Your task to perform on an android device: empty trash in google photos Image 0: 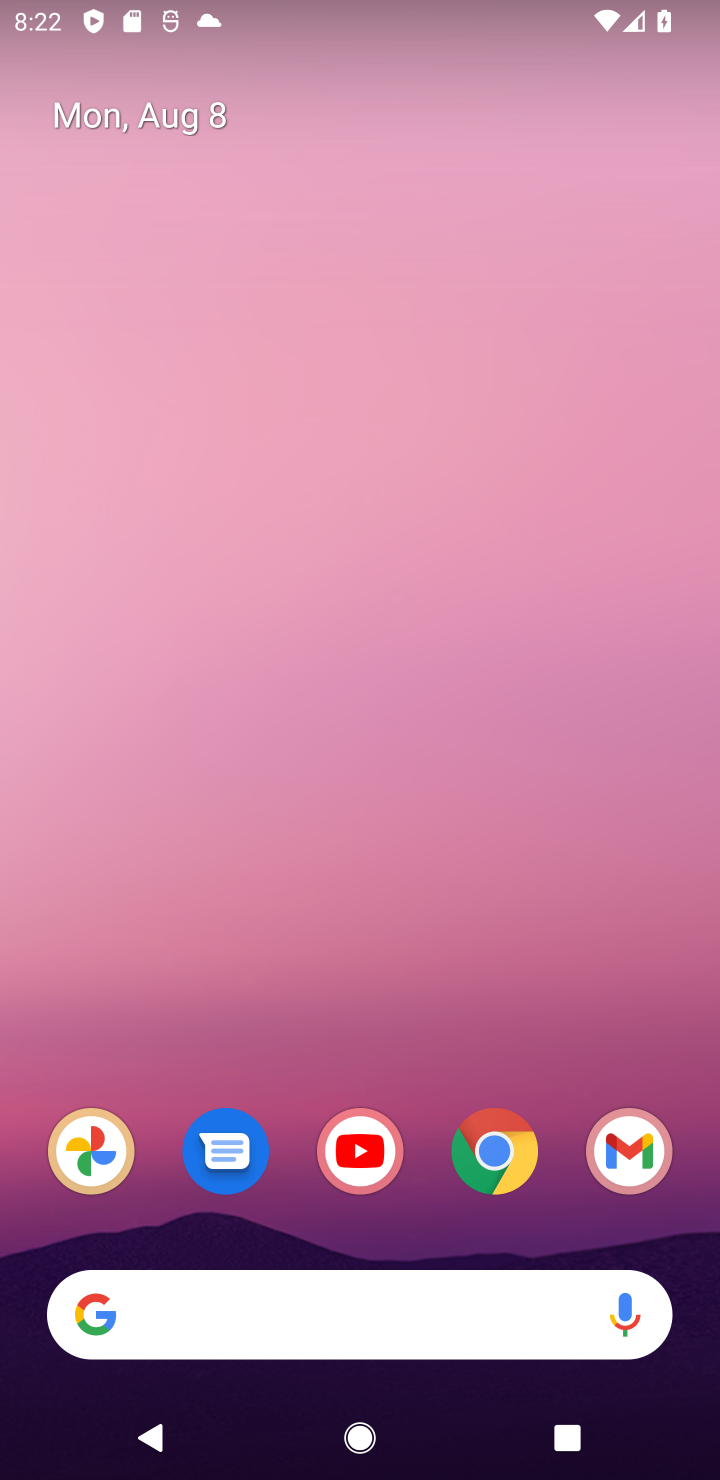
Step 0: drag from (429, 1055) to (333, 439)
Your task to perform on an android device: empty trash in google photos Image 1: 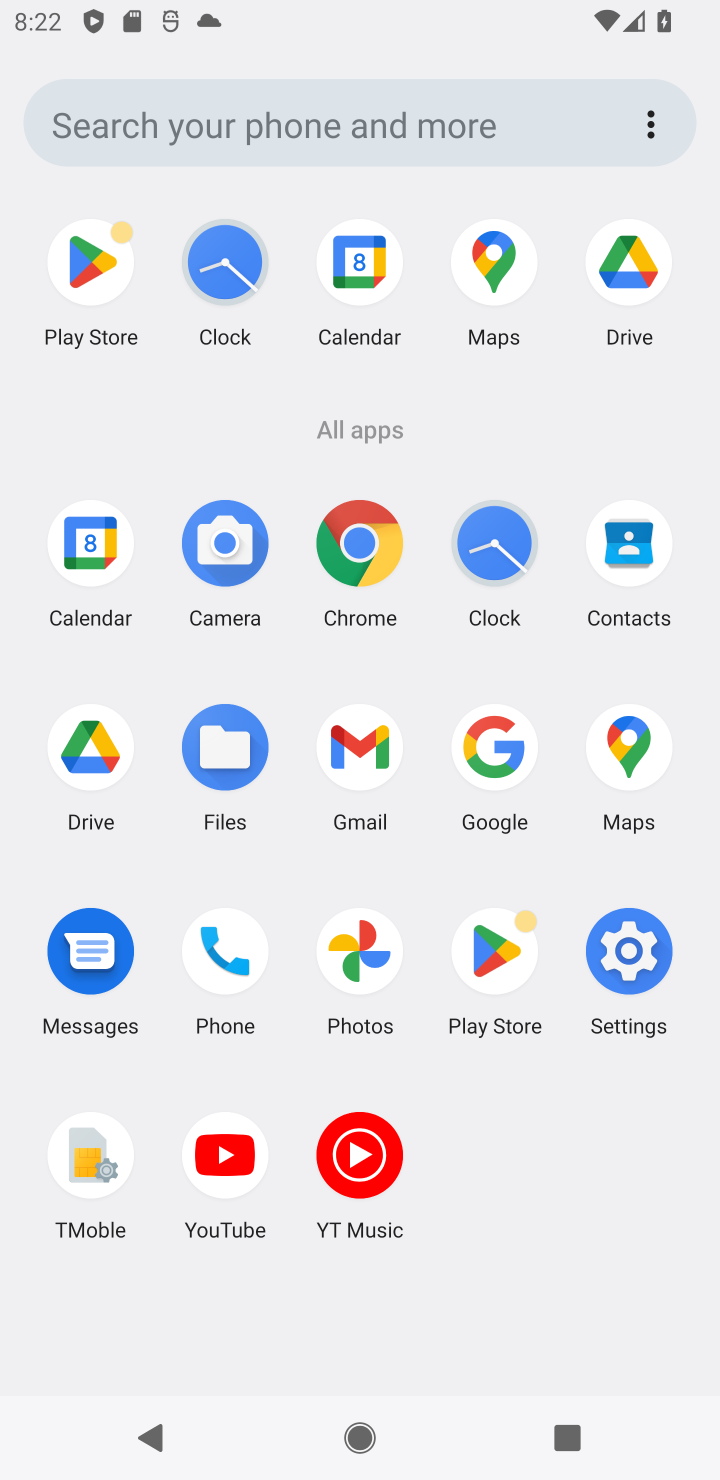
Step 1: click (345, 947)
Your task to perform on an android device: empty trash in google photos Image 2: 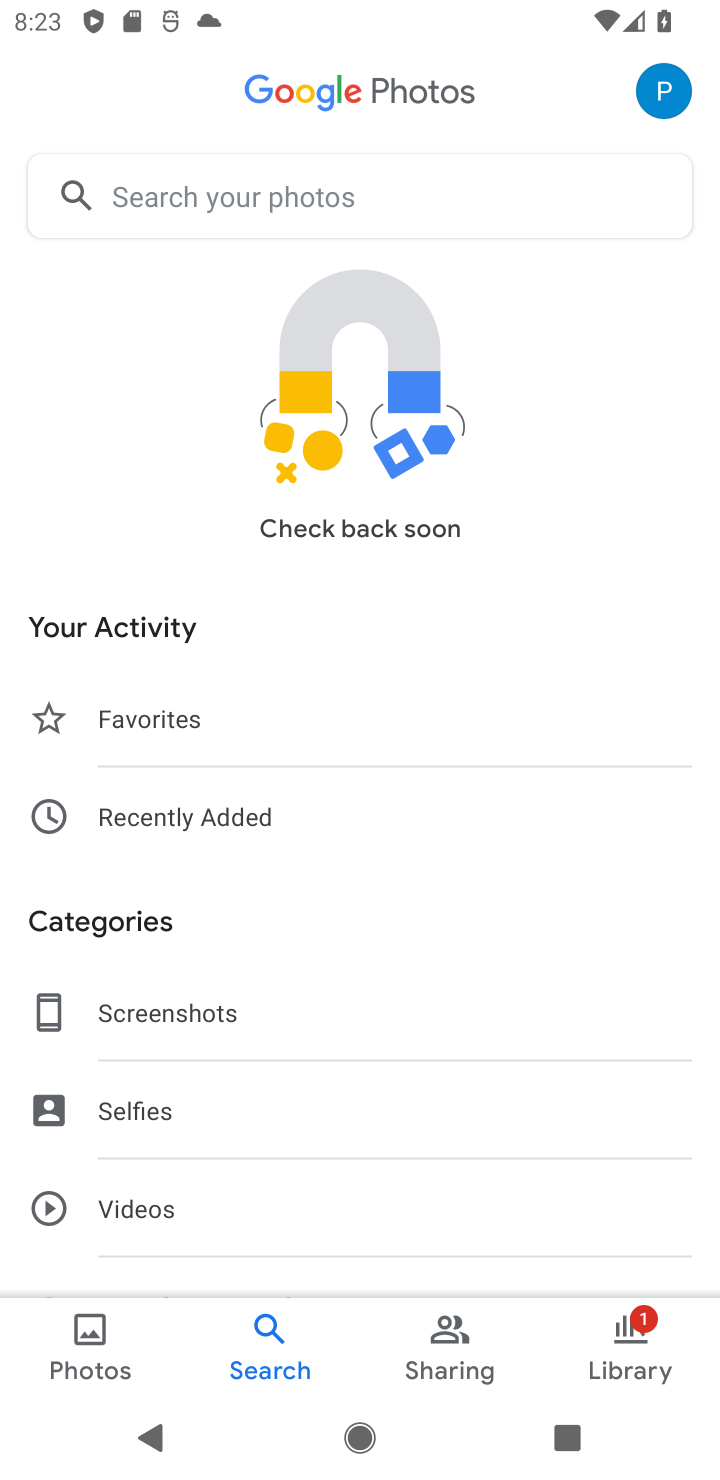
Step 2: click (607, 1329)
Your task to perform on an android device: empty trash in google photos Image 3: 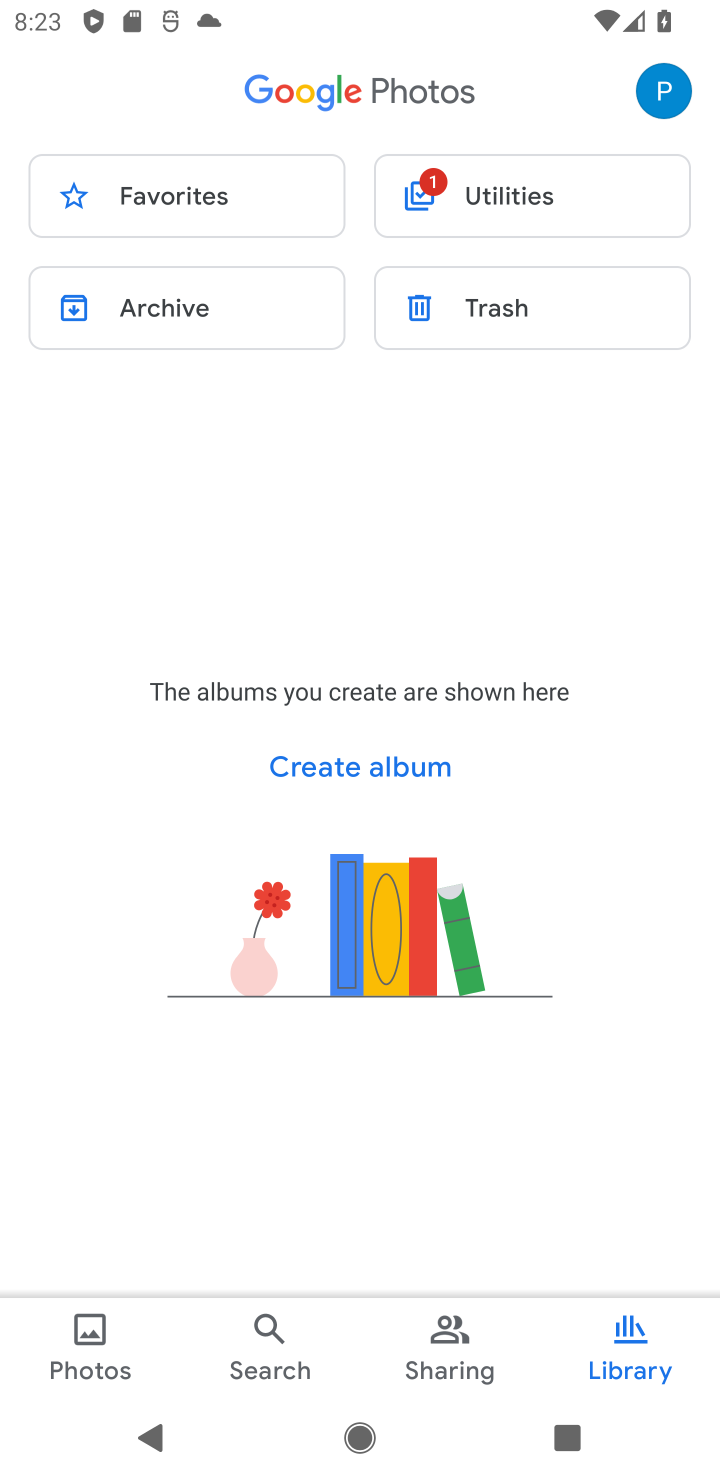
Step 3: click (474, 310)
Your task to perform on an android device: empty trash in google photos Image 4: 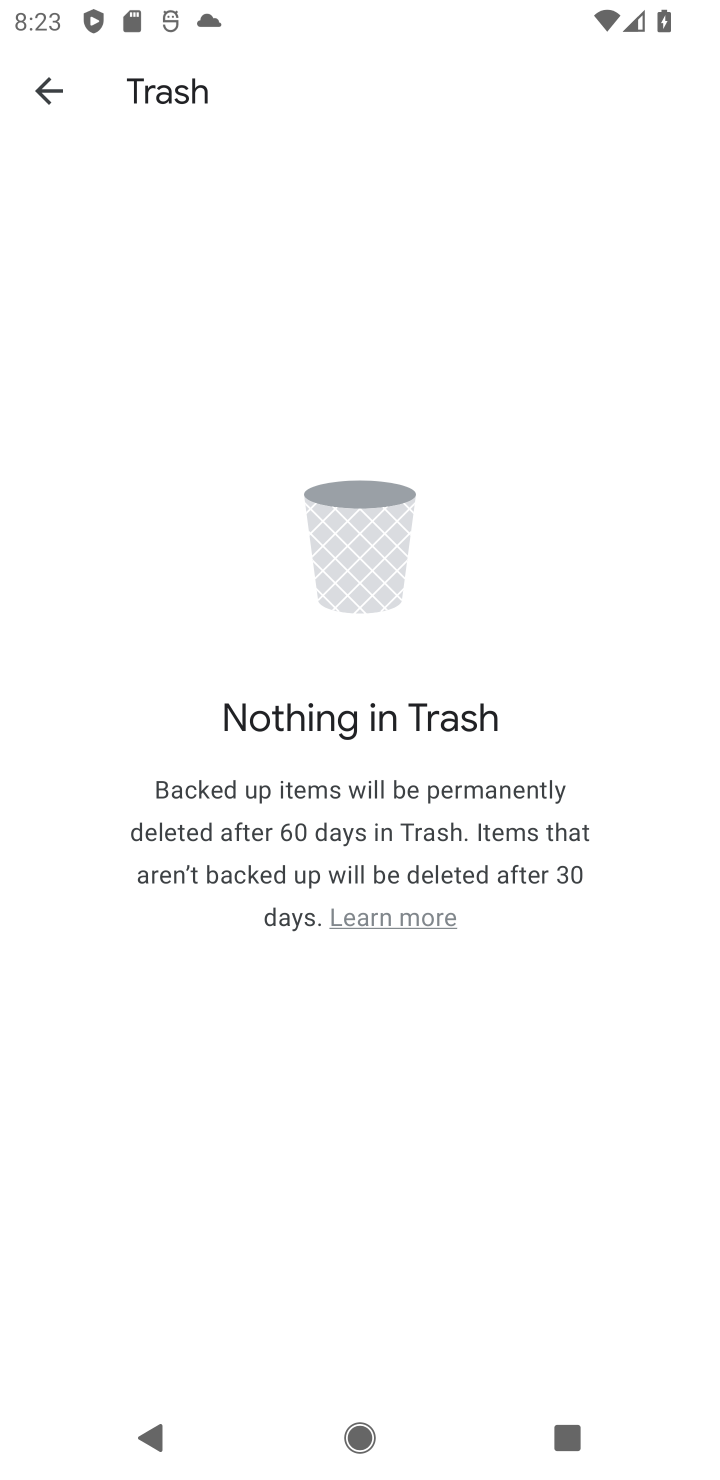
Step 4: task complete